Your task to perform on an android device: Go to eBay Image 0: 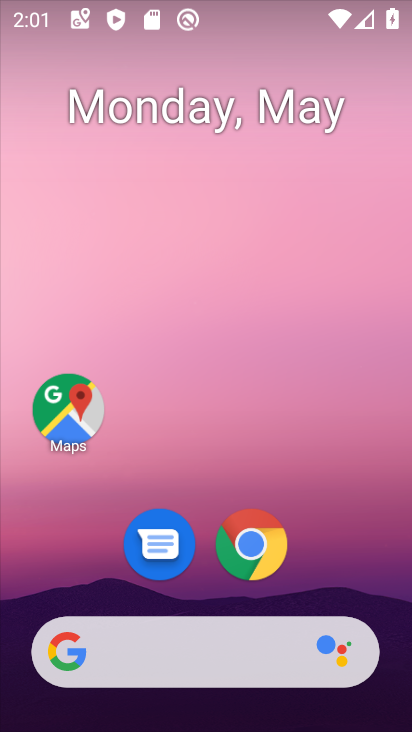
Step 0: drag from (379, 583) to (379, 244)
Your task to perform on an android device: Go to eBay Image 1: 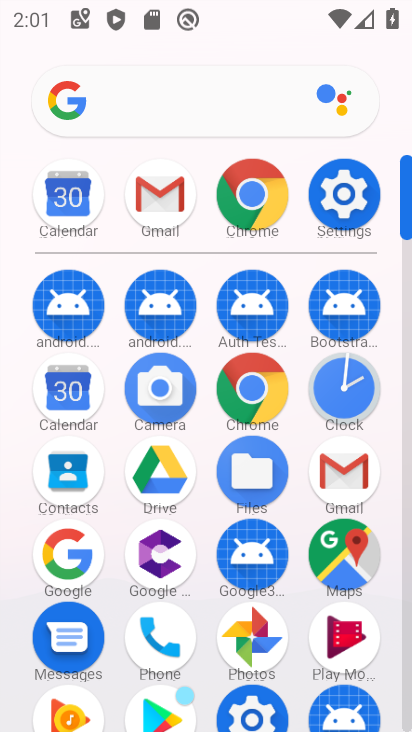
Step 1: click (266, 403)
Your task to perform on an android device: Go to eBay Image 2: 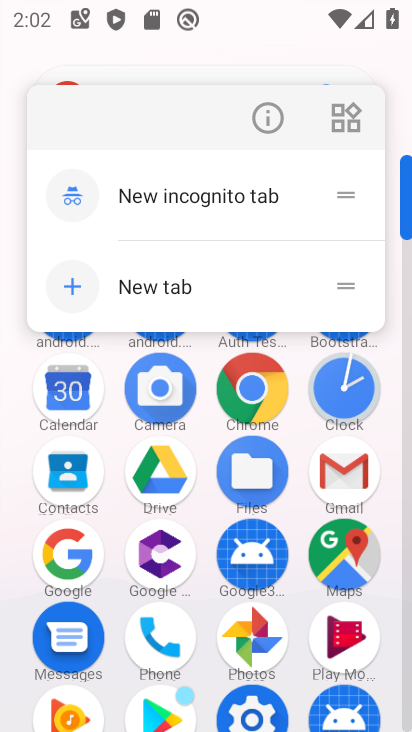
Step 2: click (266, 403)
Your task to perform on an android device: Go to eBay Image 3: 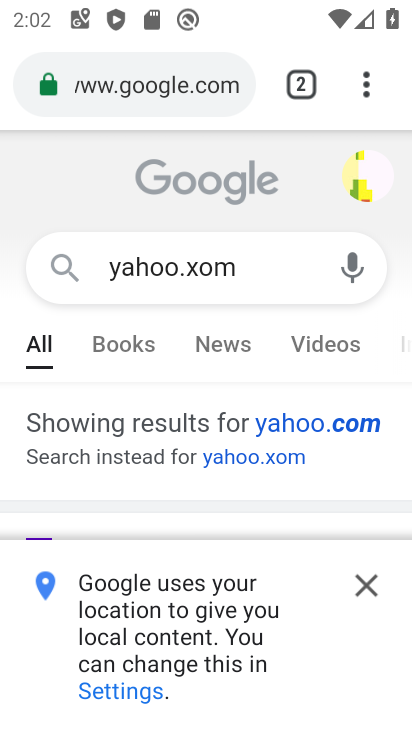
Step 3: click (190, 87)
Your task to perform on an android device: Go to eBay Image 4: 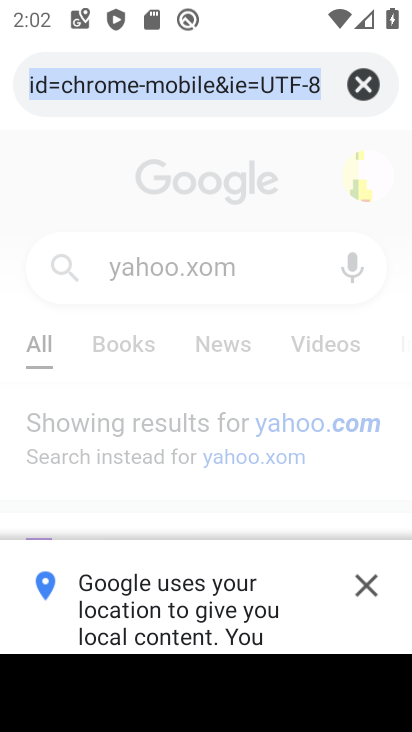
Step 4: click (365, 92)
Your task to perform on an android device: Go to eBay Image 5: 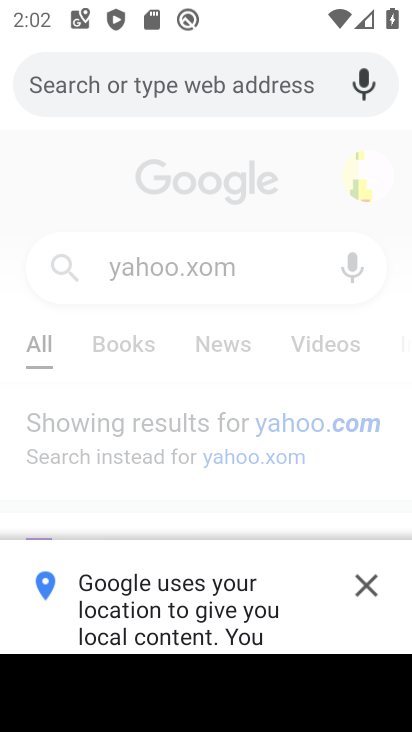
Step 5: type "ebay"
Your task to perform on an android device: Go to eBay Image 6: 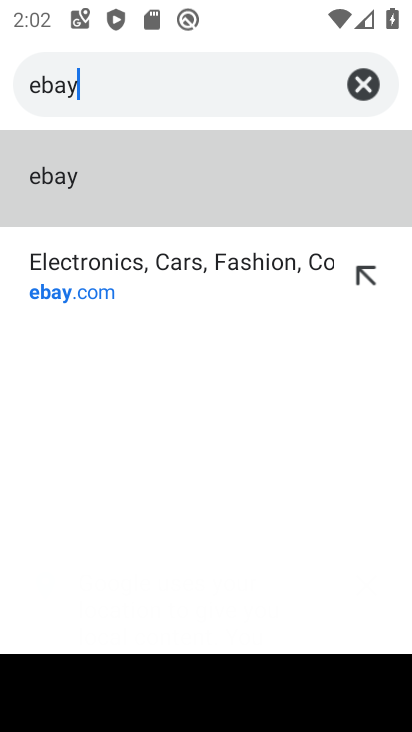
Step 6: click (247, 288)
Your task to perform on an android device: Go to eBay Image 7: 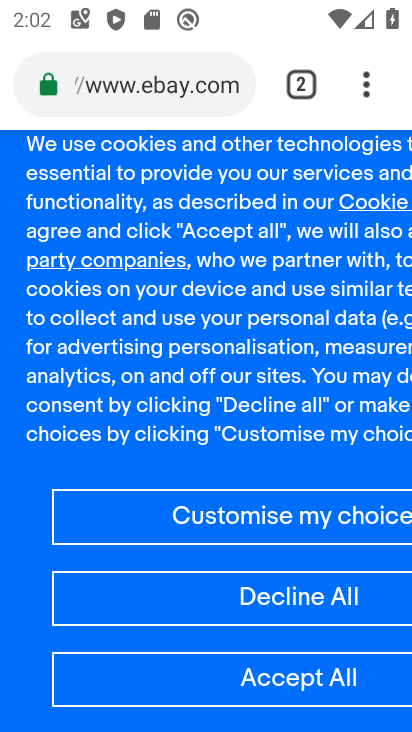
Step 7: task complete